Your task to perform on an android device: toggle airplane mode Image 0: 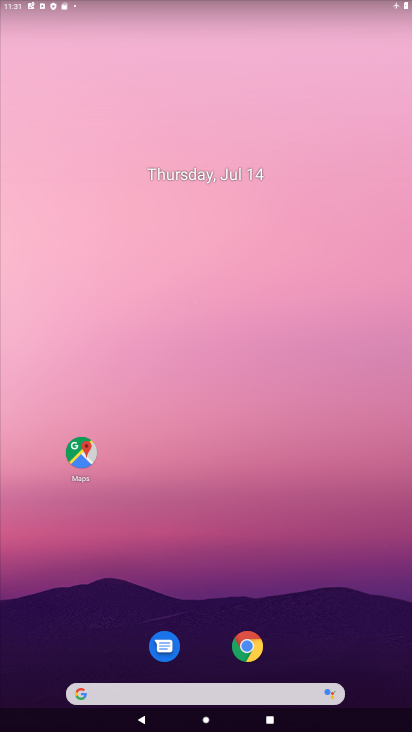
Step 0: drag from (206, 584) to (183, 169)
Your task to perform on an android device: toggle airplane mode Image 1: 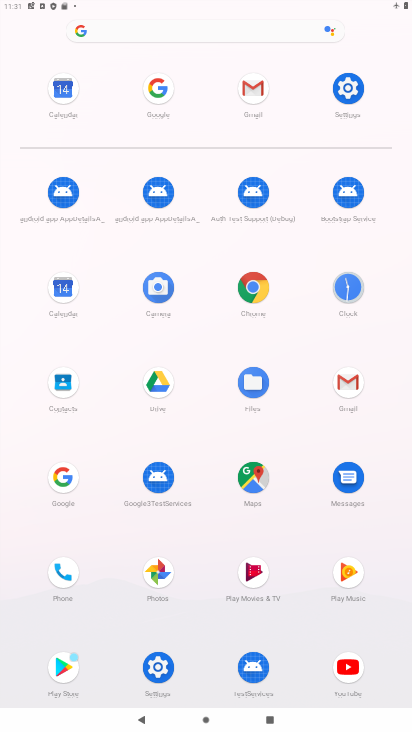
Step 1: click (340, 96)
Your task to perform on an android device: toggle airplane mode Image 2: 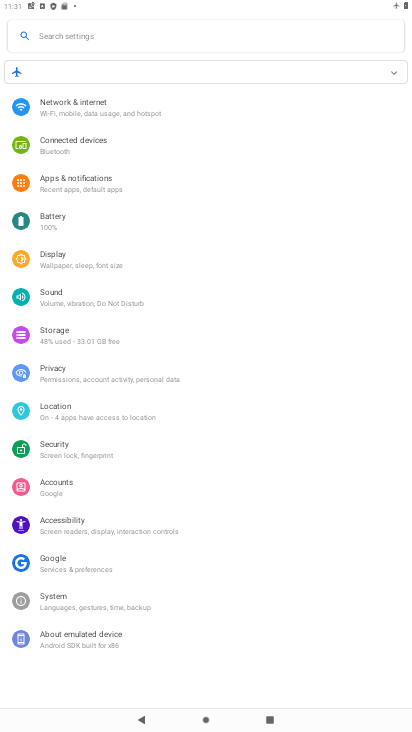
Step 2: click (98, 118)
Your task to perform on an android device: toggle airplane mode Image 3: 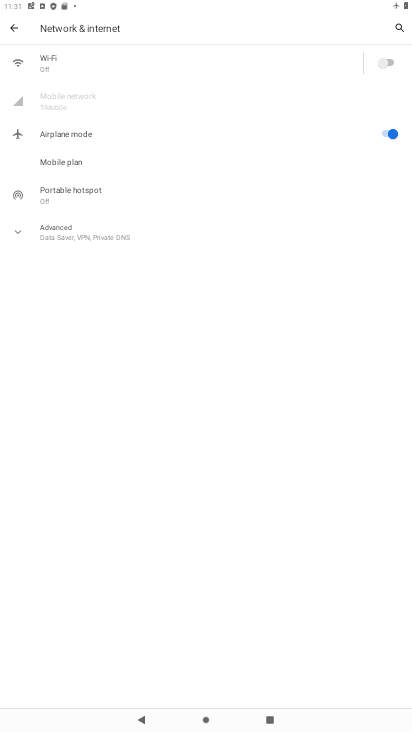
Step 3: click (389, 137)
Your task to perform on an android device: toggle airplane mode Image 4: 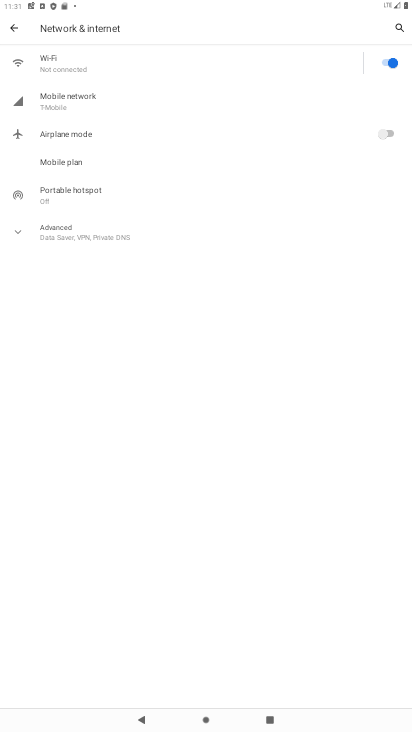
Step 4: task complete